Your task to perform on an android device: Is it going to rain today? Image 0: 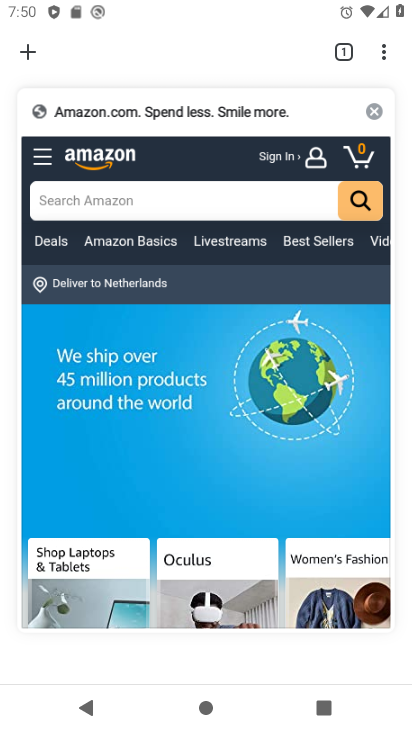
Step 0: press home button
Your task to perform on an android device: Is it going to rain today? Image 1: 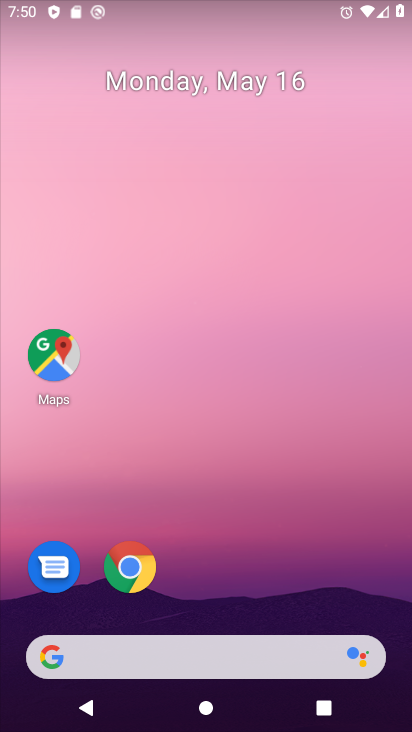
Step 1: drag from (164, 585) to (209, 252)
Your task to perform on an android device: Is it going to rain today? Image 2: 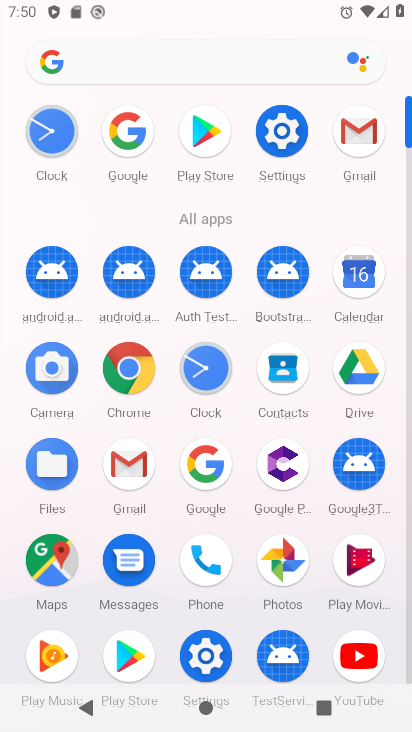
Step 2: click (205, 476)
Your task to perform on an android device: Is it going to rain today? Image 3: 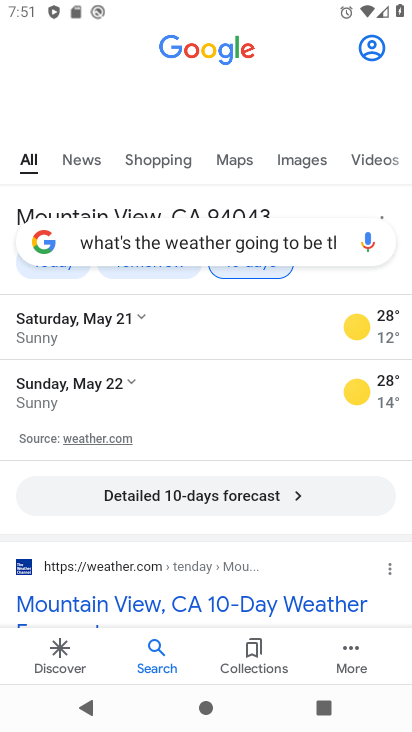
Step 3: task complete